Your task to perform on an android device: Open settings Image 0: 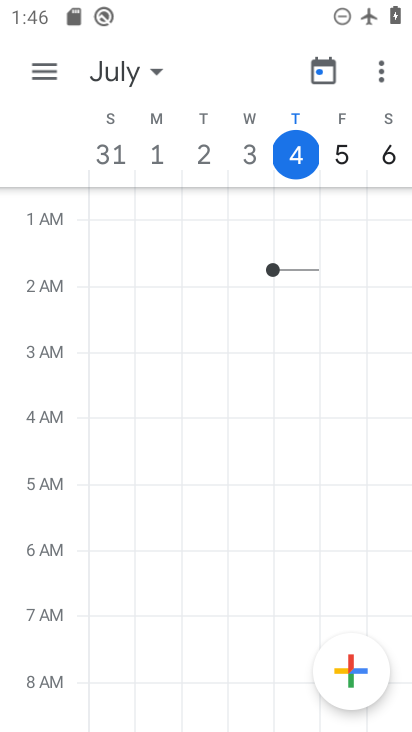
Step 0: press home button
Your task to perform on an android device: Open settings Image 1: 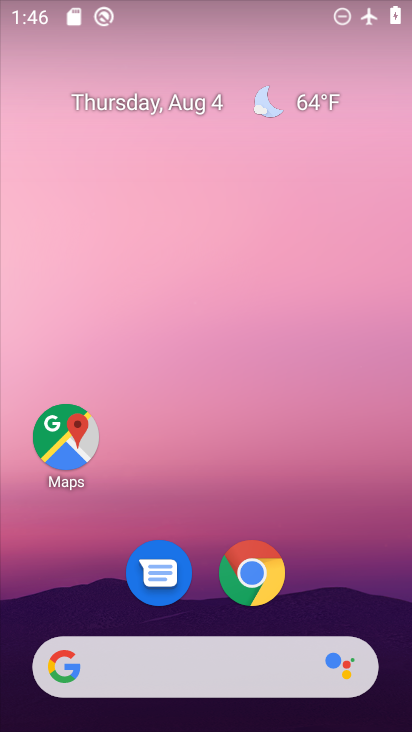
Step 1: drag from (326, 579) to (260, 71)
Your task to perform on an android device: Open settings Image 2: 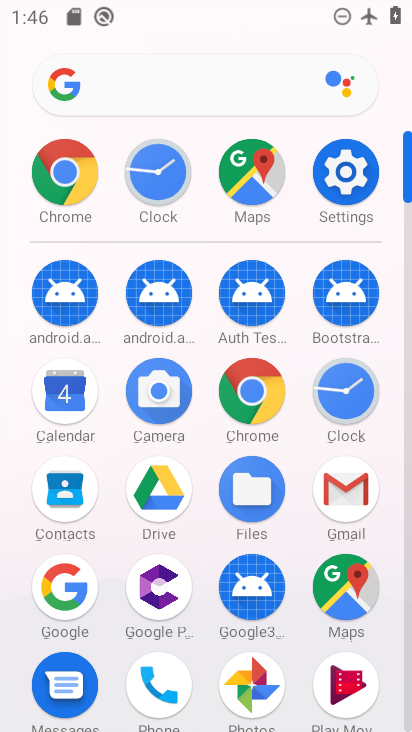
Step 2: click (353, 166)
Your task to perform on an android device: Open settings Image 3: 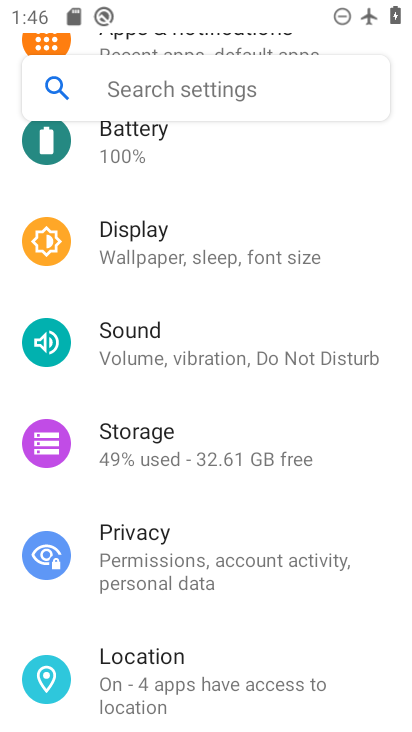
Step 3: task complete